Your task to perform on an android device: Open battery settings Image 0: 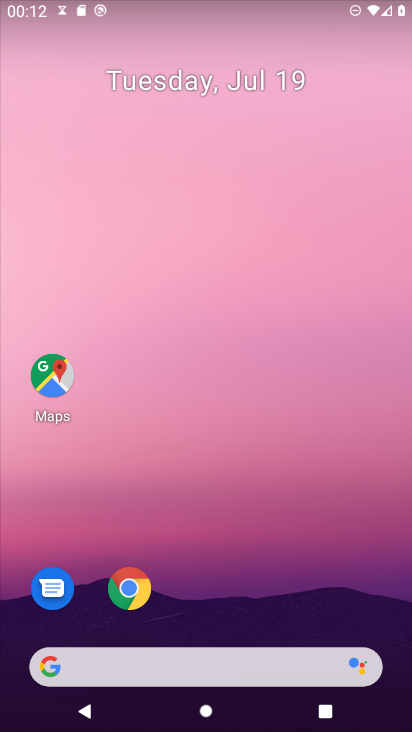
Step 0: press home button
Your task to perform on an android device: Open battery settings Image 1: 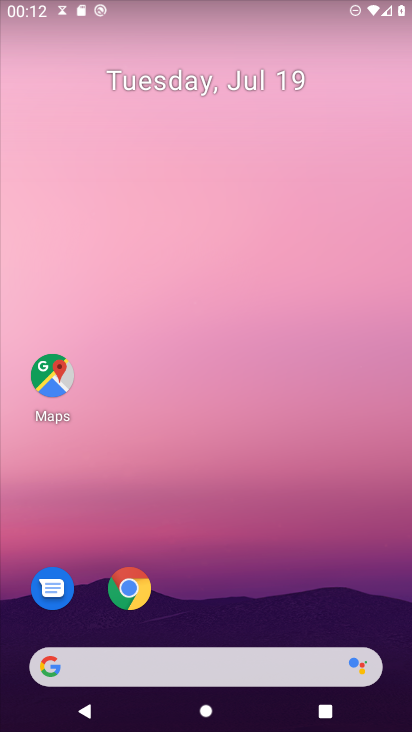
Step 1: drag from (311, 542) to (398, 155)
Your task to perform on an android device: Open battery settings Image 2: 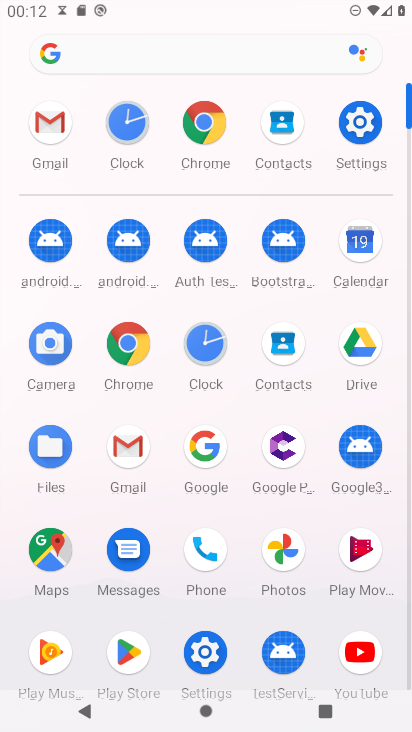
Step 2: click (371, 125)
Your task to perform on an android device: Open battery settings Image 3: 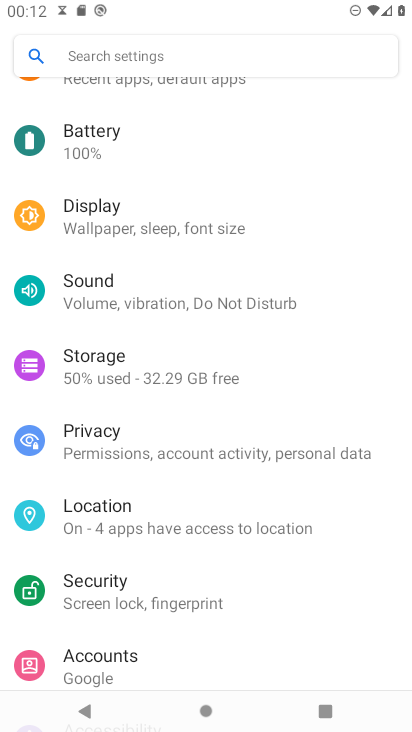
Step 3: click (99, 142)
Your task to perform on an android device: Open battery settings Image 4: 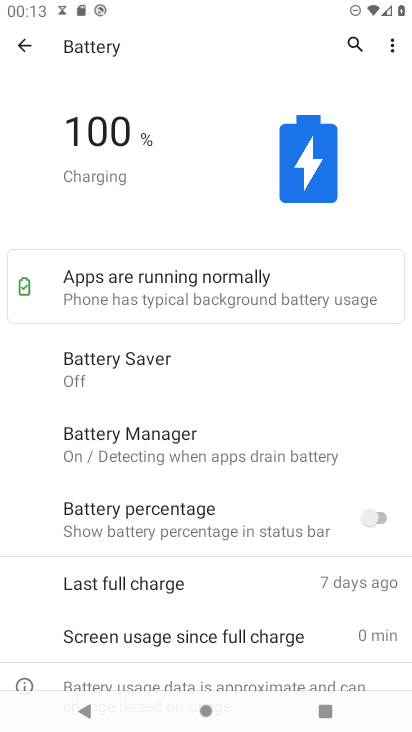
Step 4: task complete